Your task to perform on an android device: Open the calendar app, open the side menu, and click the "Day" option Image 0: 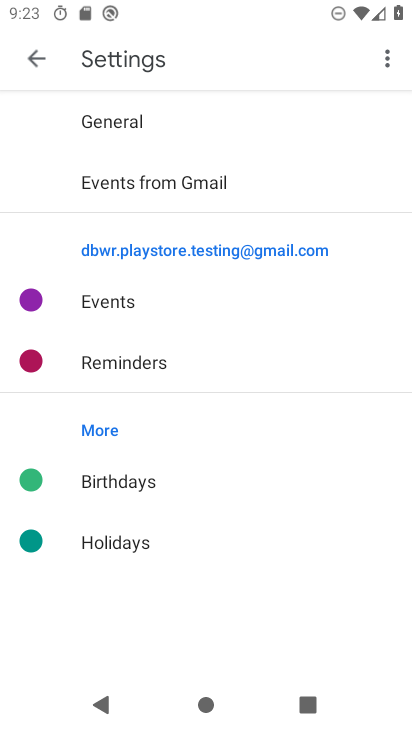
Step 0: press home button
Your task to perform on an android device: Open the calendar app, open the side menu, and click the "Day" option Image 1: 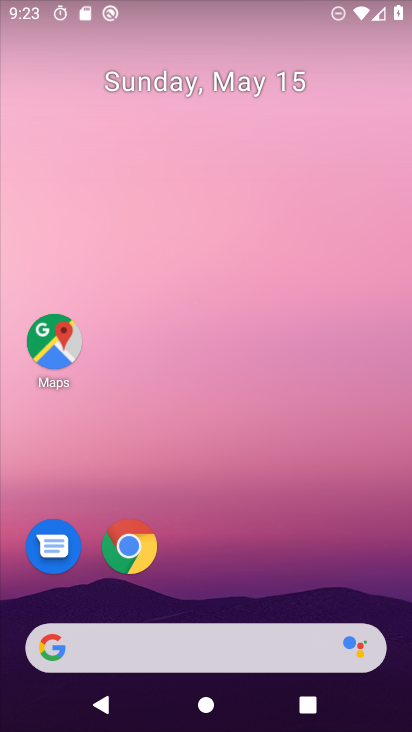
Step 1: drag from (214, 569) to (252, 62)
Your task to perform on an android device: Open the calendar app, open the side menu, and click the "Day" option Image 2: 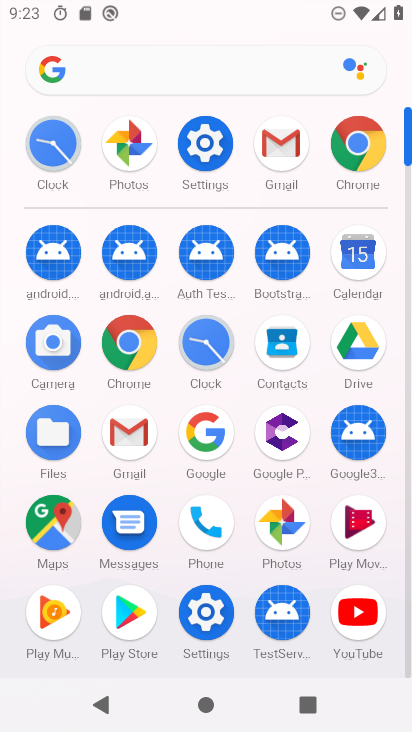
Step 2: click (349, 246)
Your task to perform on an android device: Open the calendar app, open the side menu, and click the "Day" option Image 3: 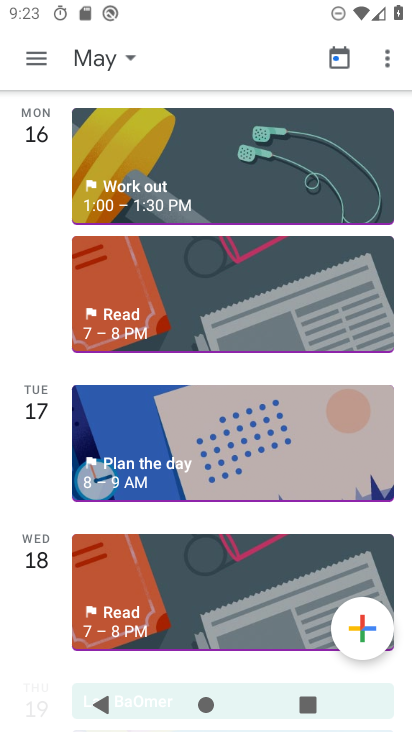
Step 3: click (42, 54)
Your task to perform on an android device: Open the calendar app, open the side menu, and click the "Day" option Image 4: 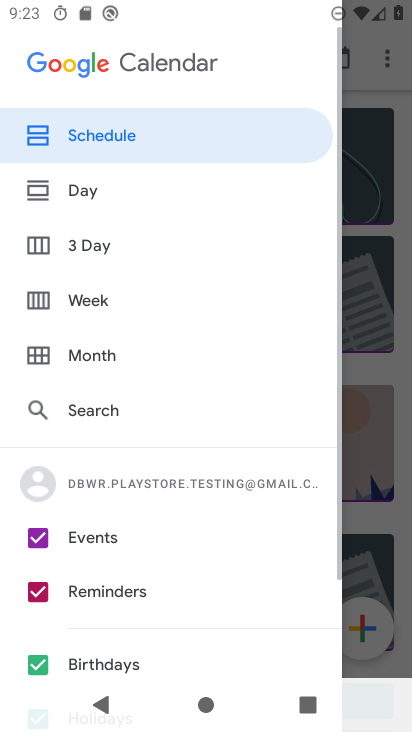
Step 4: click (31, 182)
Your task to perform on an android device: Open the calendar app, open the side menu, and click the "Day" option Image 5: 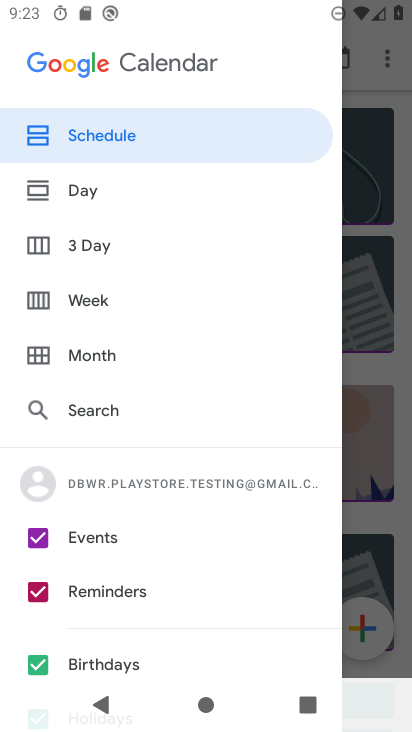
Step 5: click (44, 182)
Your task to perform on an android device: Open the calendar app, open the side menu, and click the "Day" option Image 6: 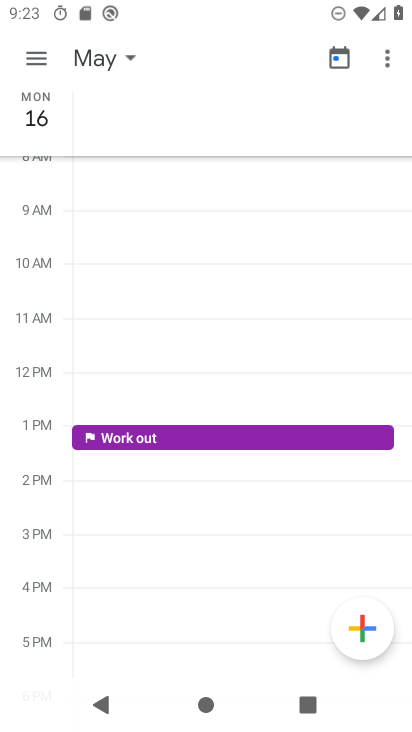
Step 6: task complete